Your task to perform on an android device: Empty the shopping cart on ebay.com. Search for razer blade on ebay.com, select the first entry, add it to the cart, then select checkout. Image 0: 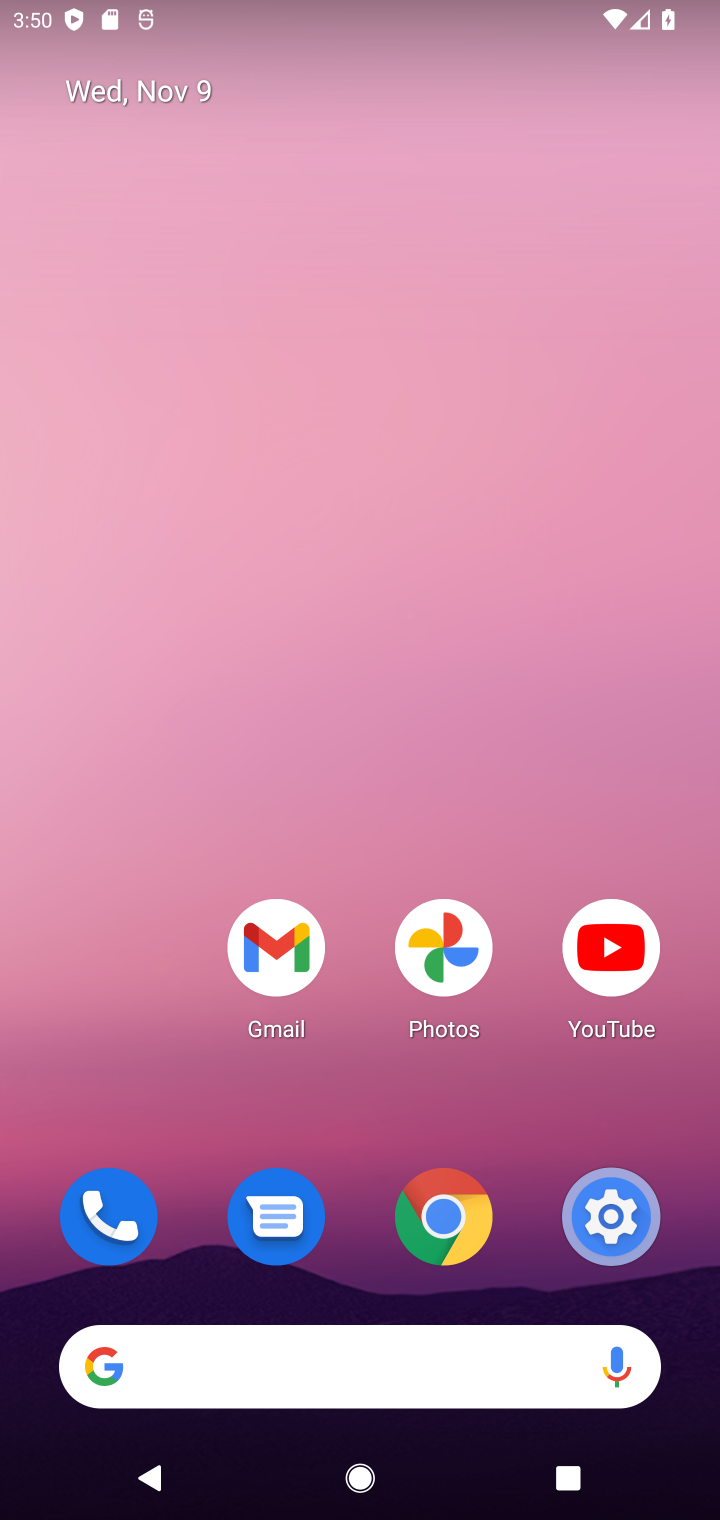
Step 0: drag from (355, 1094) to (475, 96)
Your task to perform on an android device: Empty the shopping cart on ebay.com. Search for razer blade on ebay.com, select the first entry, add it to the cart, then select checkout. Image 1: 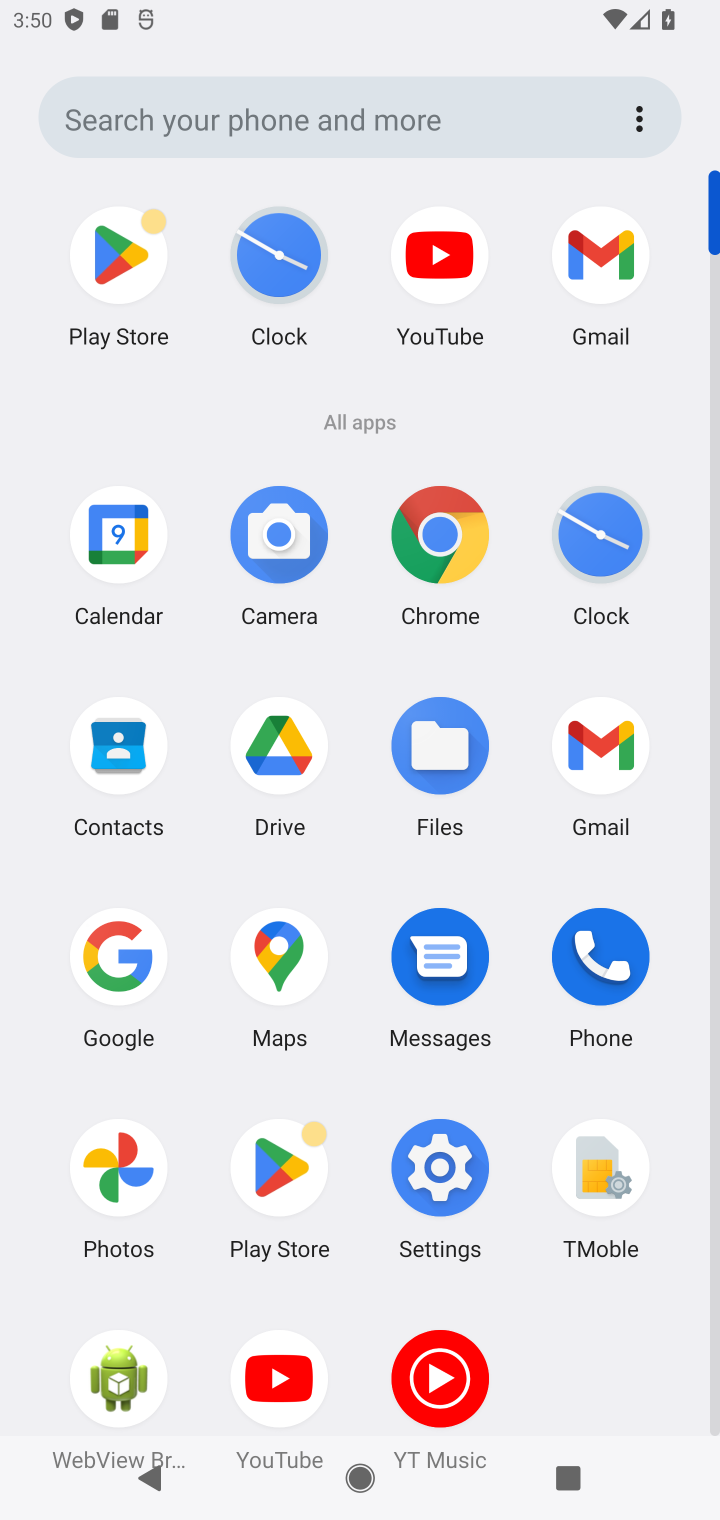
Step 1: click (444, 526)
Your task to perform on an android device: Empty the shopping cart on ebay.com. Search for razer blade on ebay.com, select the first entry, add it to the cart, then select checkout. Image 2: 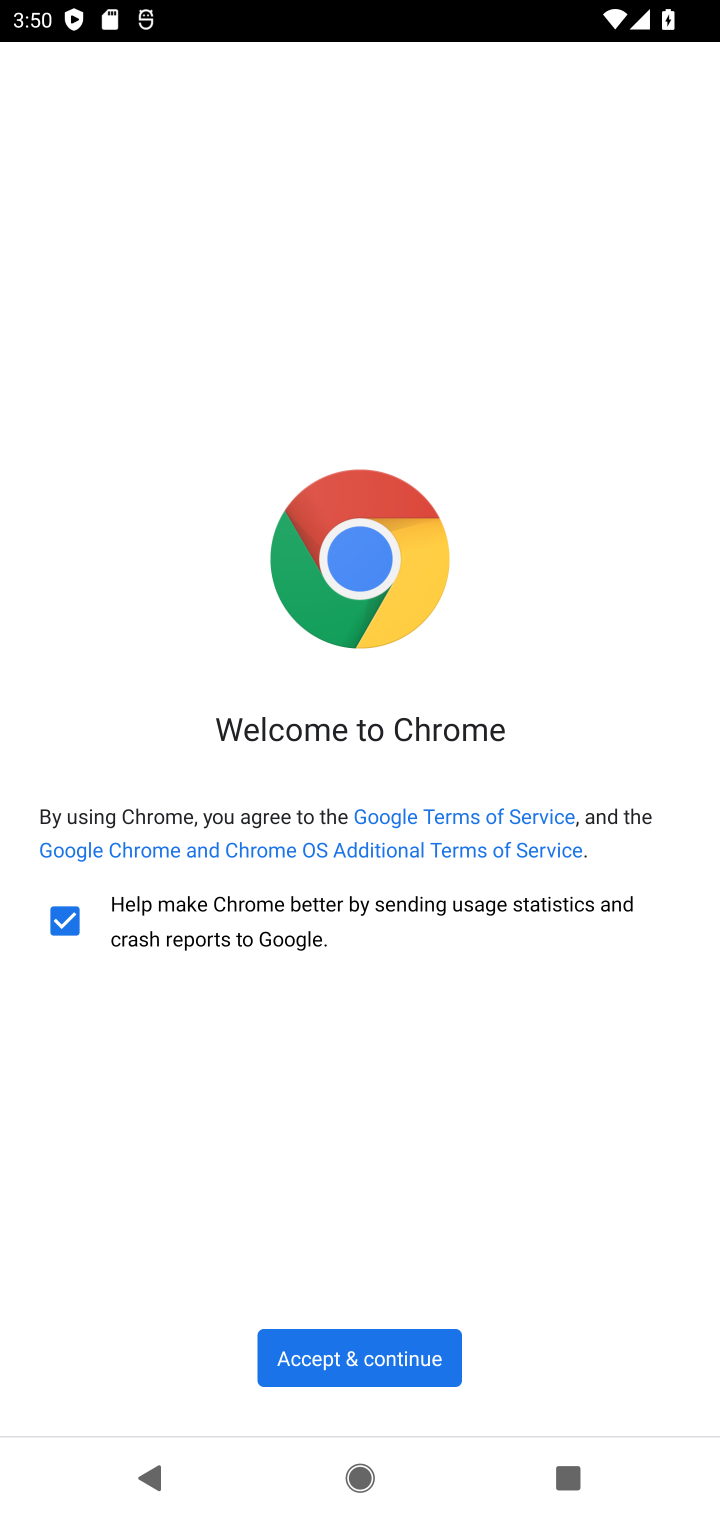
Step 2: click (361, 1343)
Your task to perform on an android device: Empty the shopping cart on ebay.com. Search for razer blade on ebay.com, select the first entry, add it to the cart, then select checkout. Image 3: 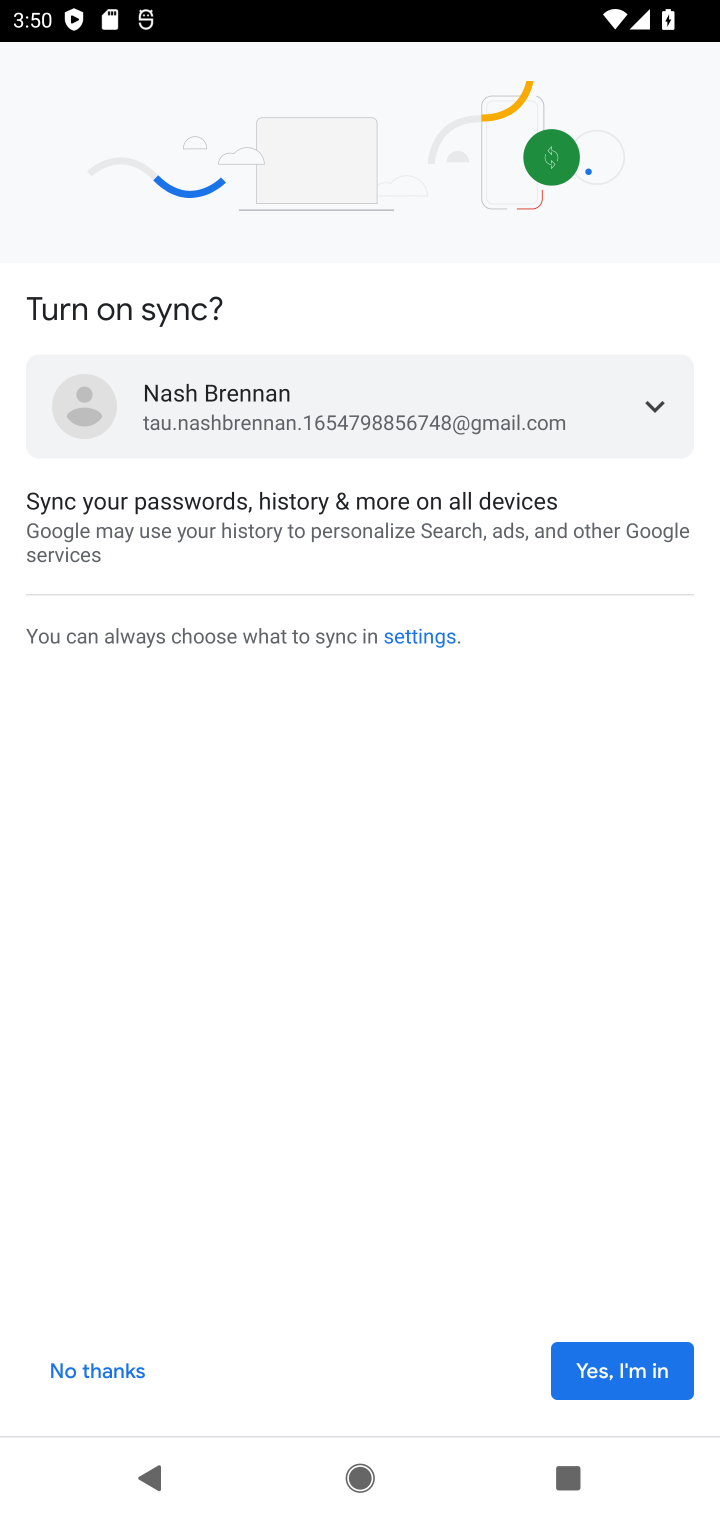
Step 3: click (653, 1366)
Your task to perform on an android device: Empty the shopping cart on ebay.com. Search for razer blade on ebay.com, select the first entry, add it to the cart, then select checkout. Image 4: 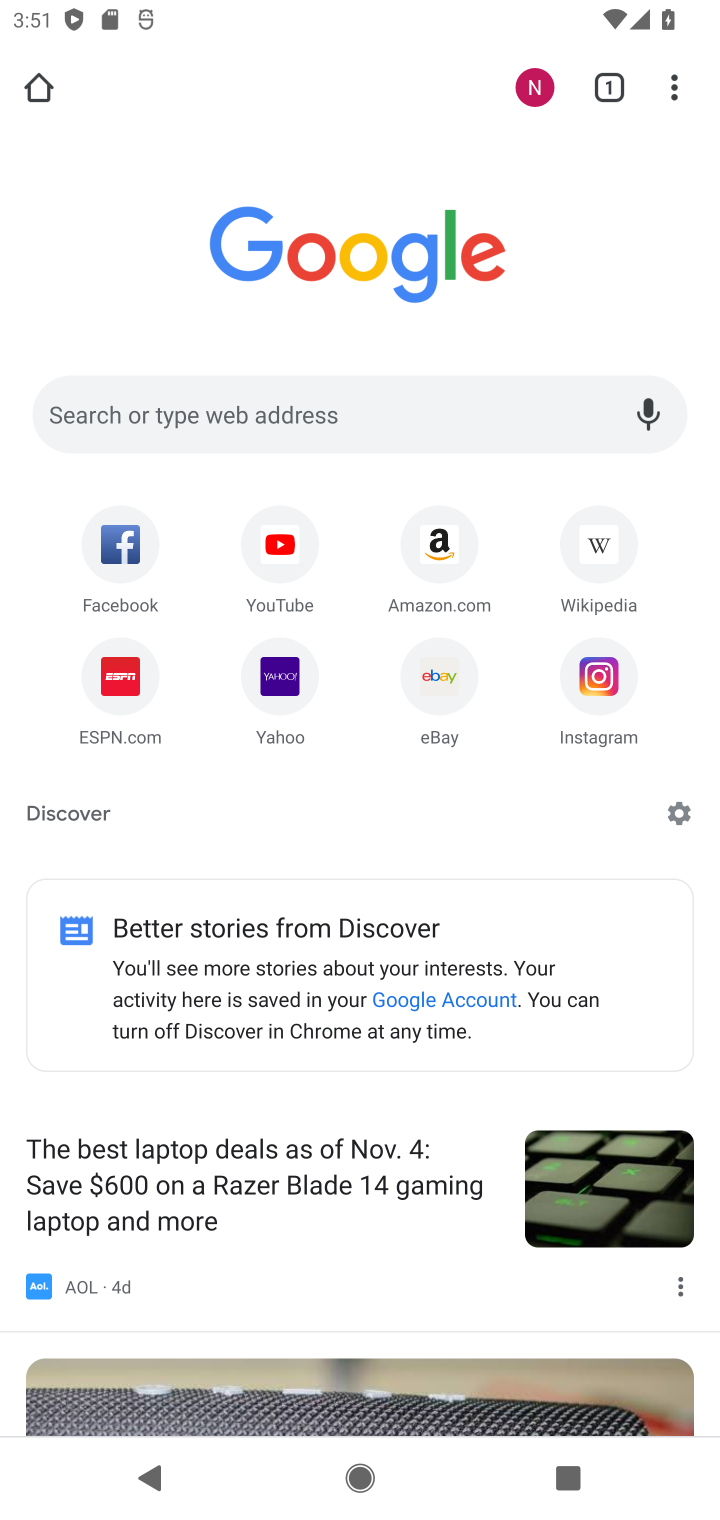
Step 4: click (433, 676)
Your task to perform on an android device: Empty the shopping cart on ebay.com. Search for razer blade on ebay.com, select the first entry, add it to the cart, then select checkout. Image 5: 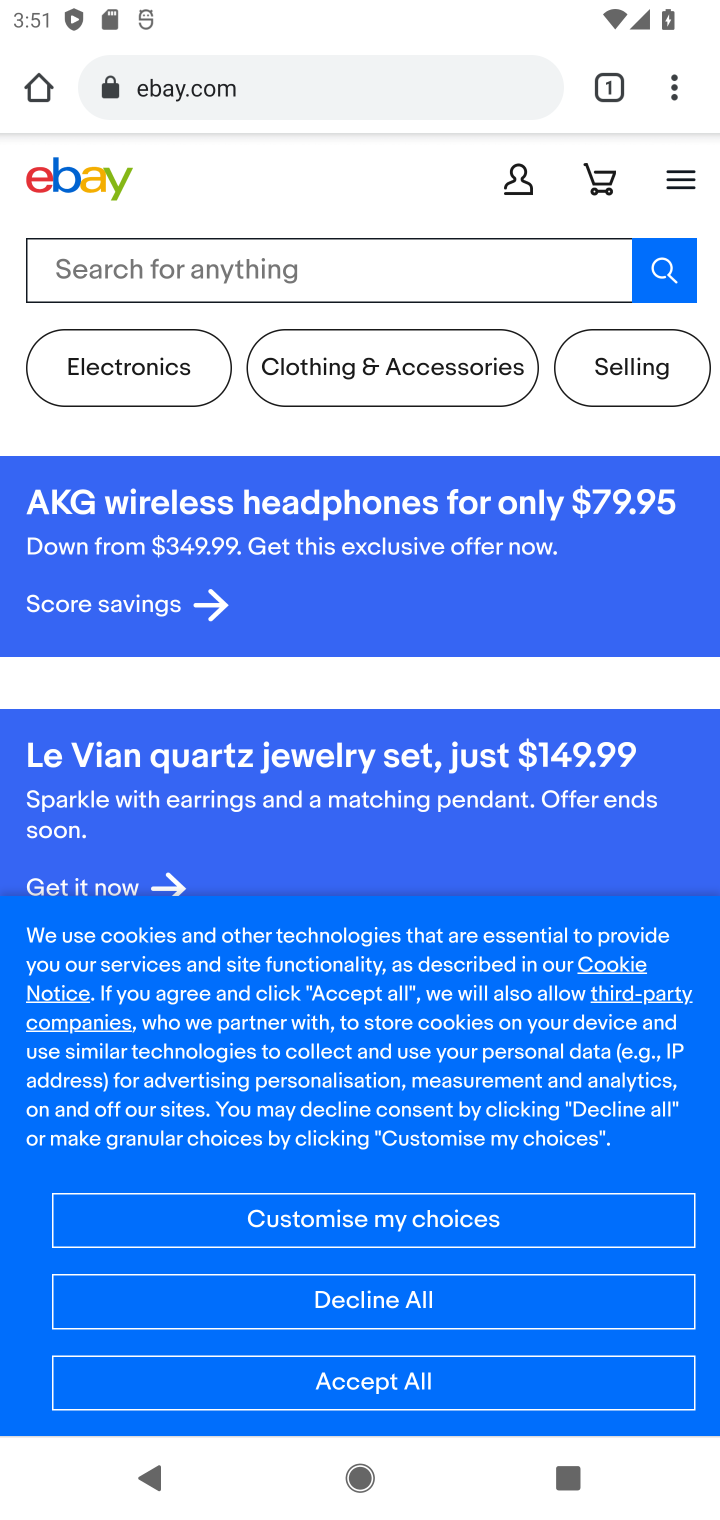
Step 5: click (439, 279)
Your task to perform on an android device: Empty the shopping cart on ebay.com. Search for razer blade on ebay.com, select the first entry, add it to the cart, then select checkout. Image 6: 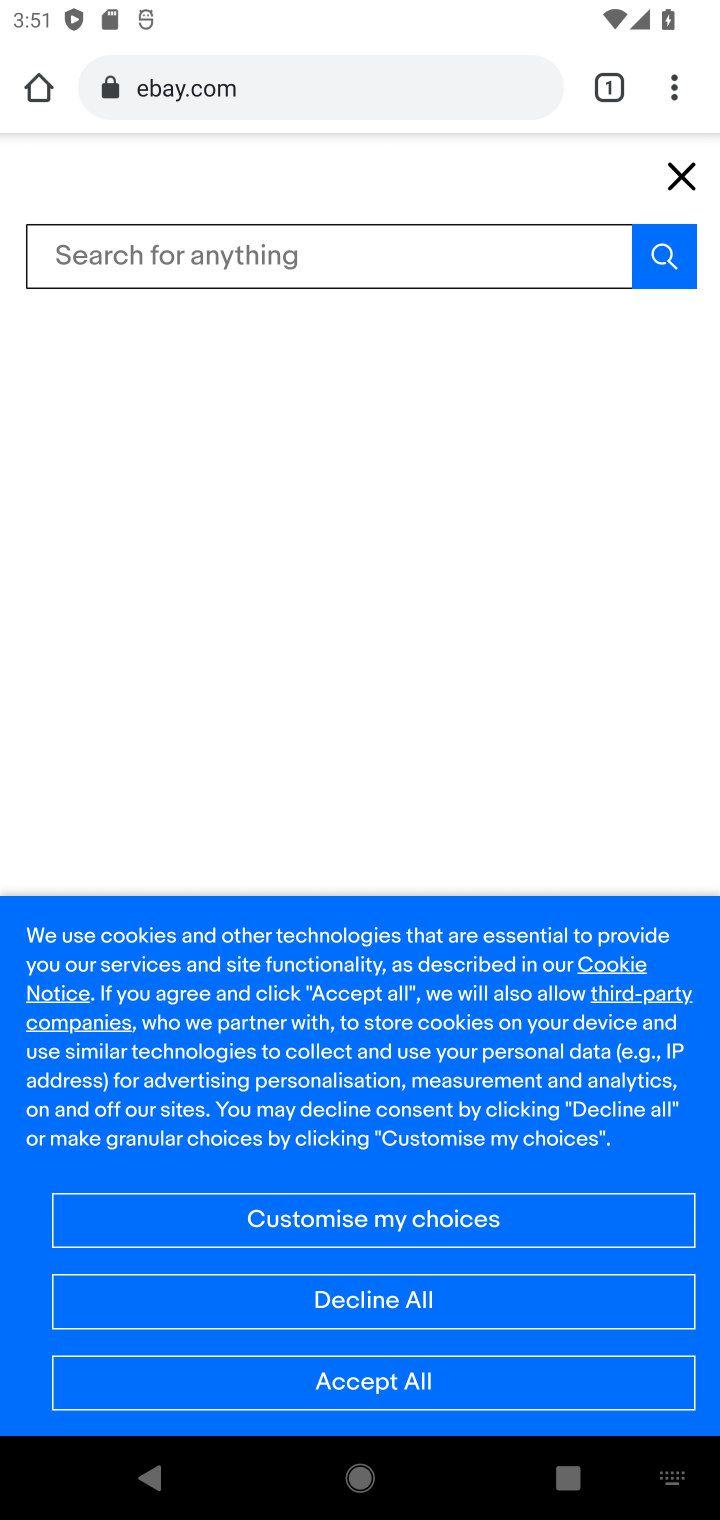
Step 6: type "razer blade"
Your task to perform on an android device: Empty the shopping cart on ebay.com. Search for razer blade on ebay.com, select the first entry, add it to the cart, then select checkout. Image 7: 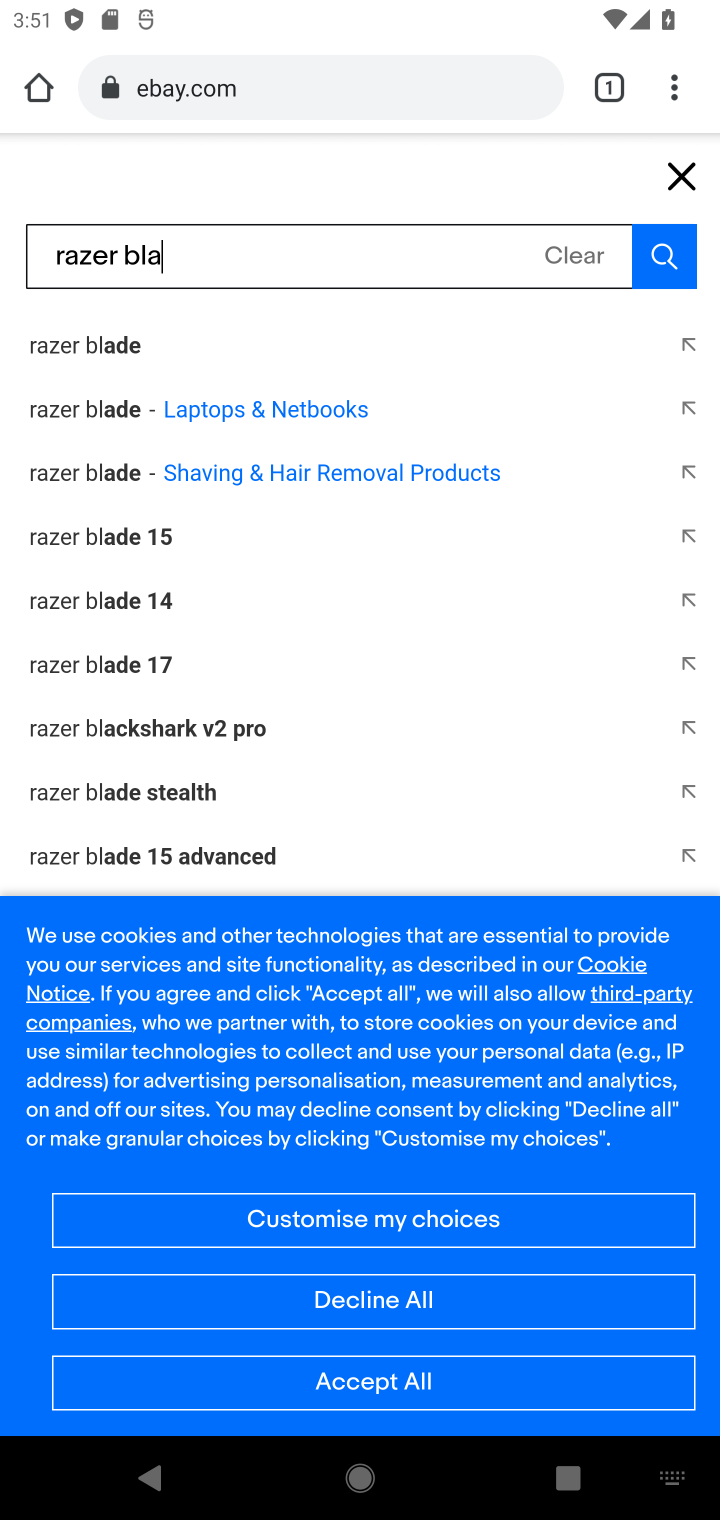
Step 7: press enter
Your task to perform on an android device: Empty the shopping cart on ebay.com. Search for razer blade on ebay.com, select the first entry, add it to the cart, then select checkout. Image 8: 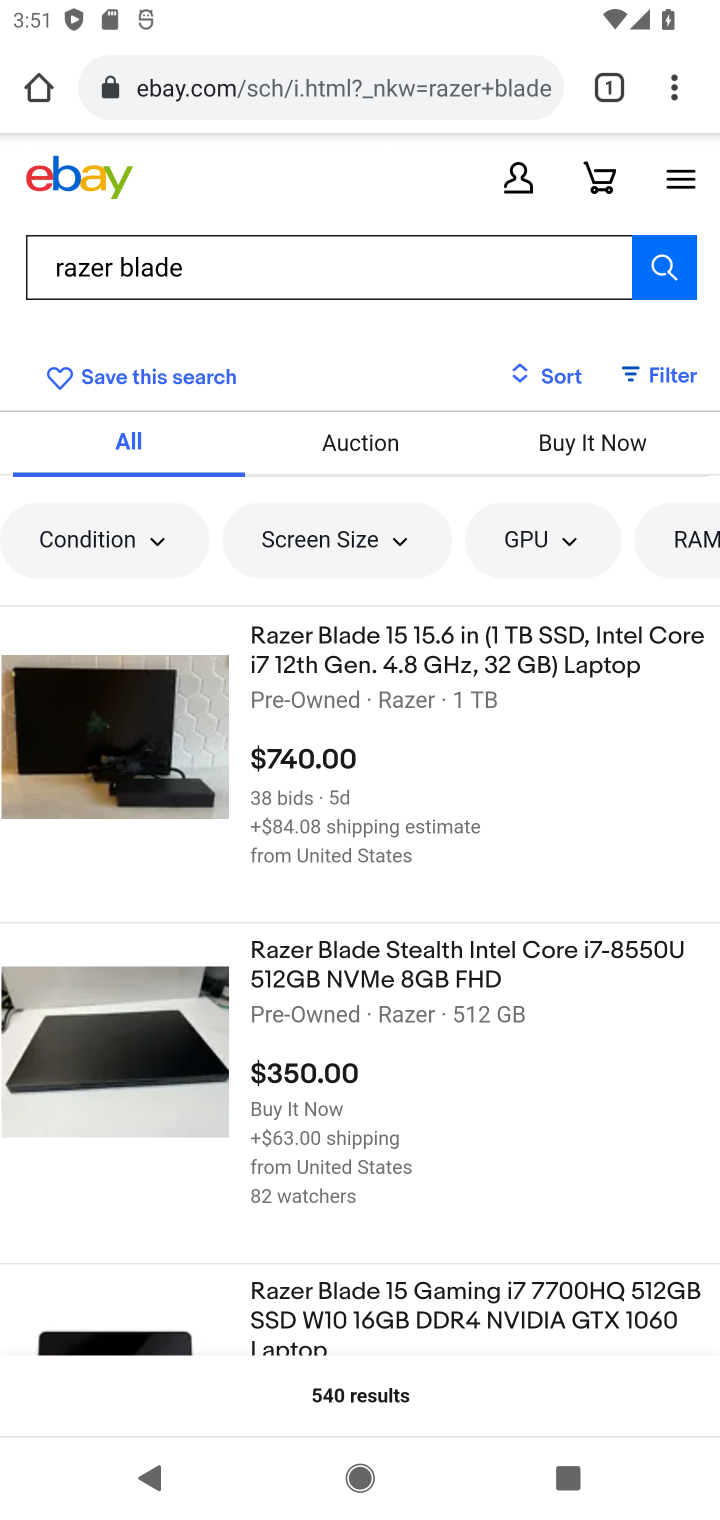
Step 8: click (164, 714)
Your task to perform on an android device: Empty the shopping cart on ebay.com. Search for razer blade on ebay.com, select the first entry, add it to the cart, then select checkout. Image 9: 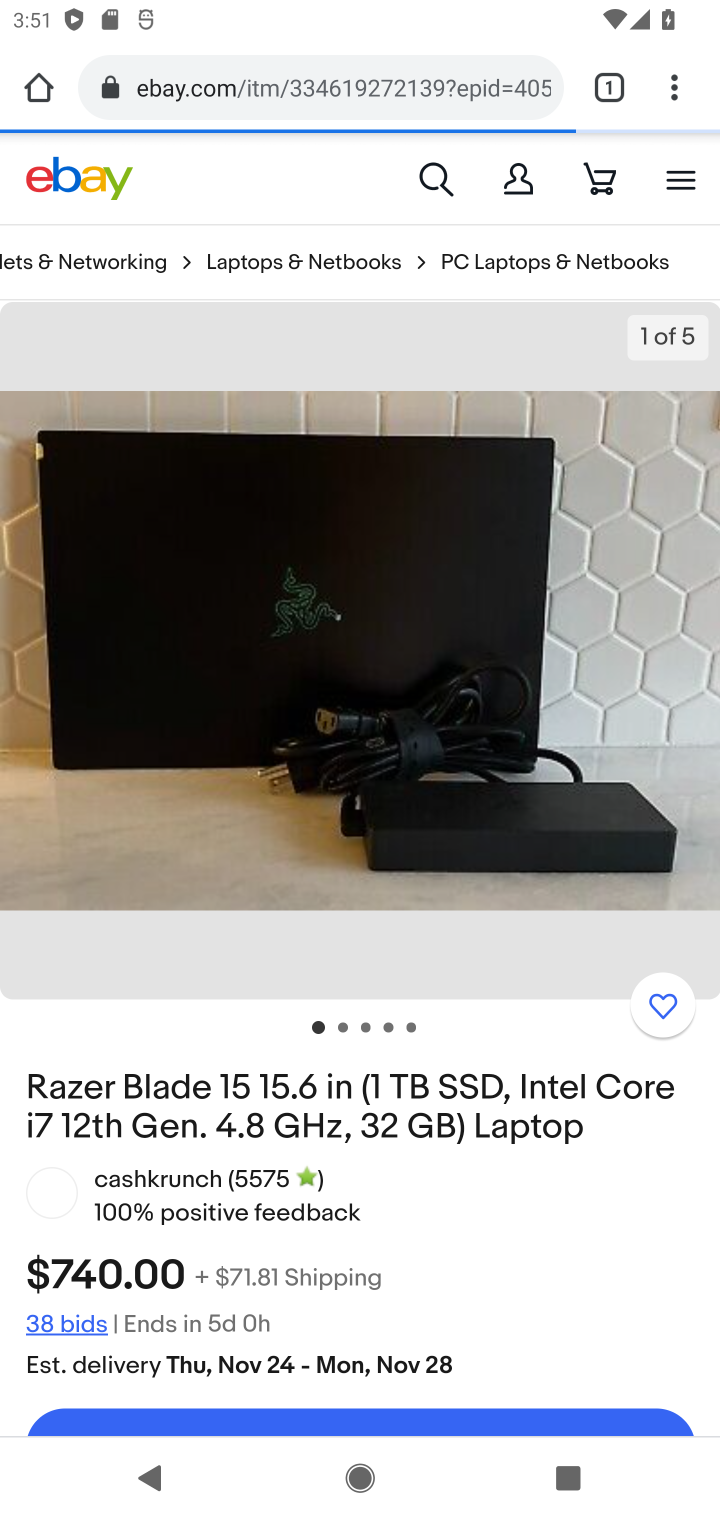
Step 9: task complete